Your task to perform on an android device: change keyboard looks Image 0: 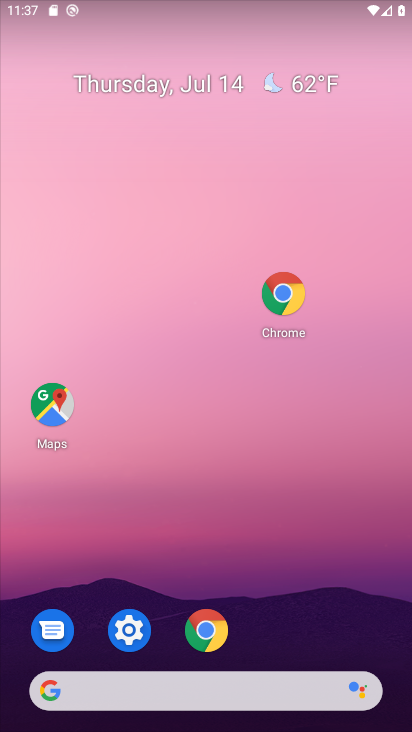
Step 0: click (246, 176)
Your task to perform on an android device: change keyboard looks Image 1: 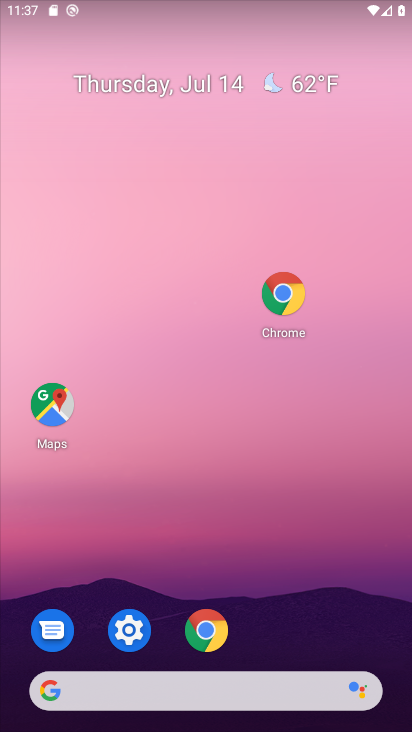
Step 1: drag from (231, 435) to (182, 91)
Your task to perform on an android device: change keyboard looks Image 2: 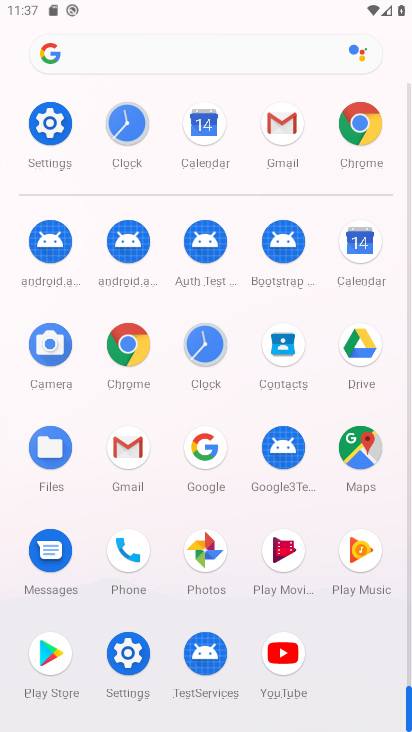
Step 2: click (125, 649)
Your task to perform on an android device: change keyboard looks Image 3: 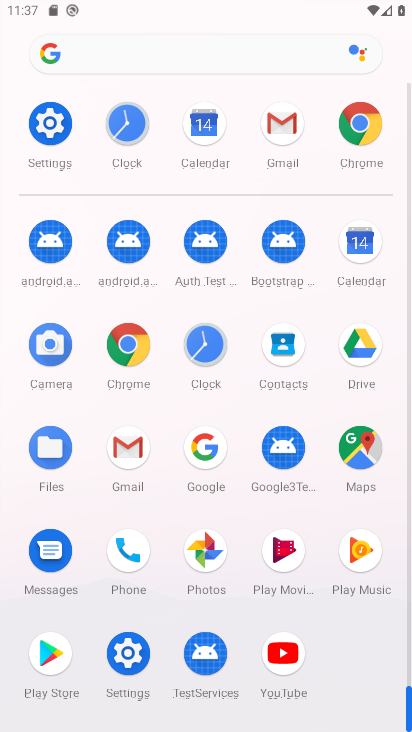
Step 3: click (126, 649)
Your task to perform on an android device: change keyboard looks Image 4: 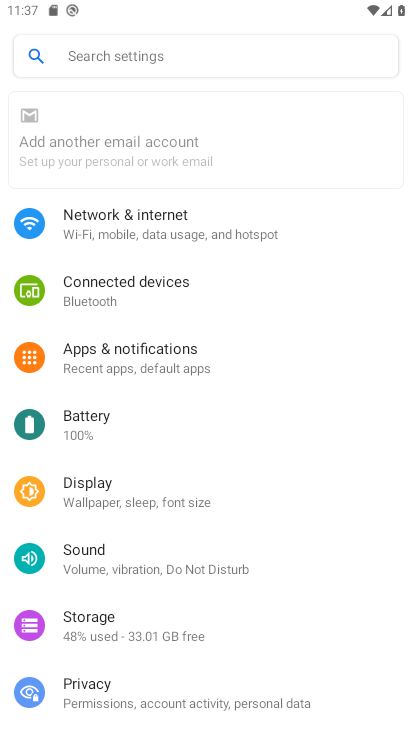
Step 4: drag from (123, 508) to (105, 189)
Your task to perform on an android device: change keyboard looks Image 5: 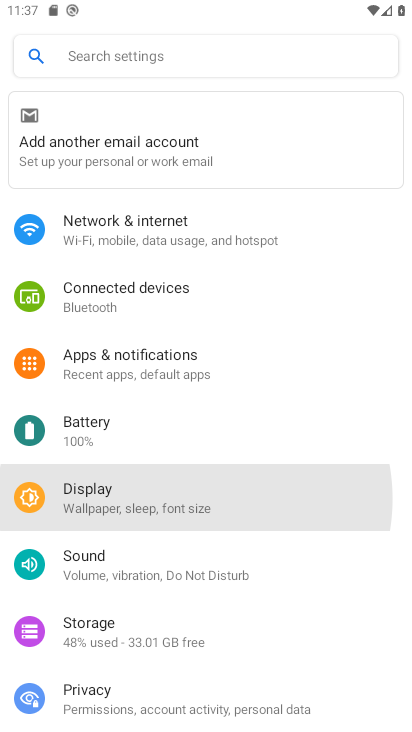
Step 5: drag from (127, 533) to (134, 170)
Your task to perform on an android device: change keyboard looks Image 6: 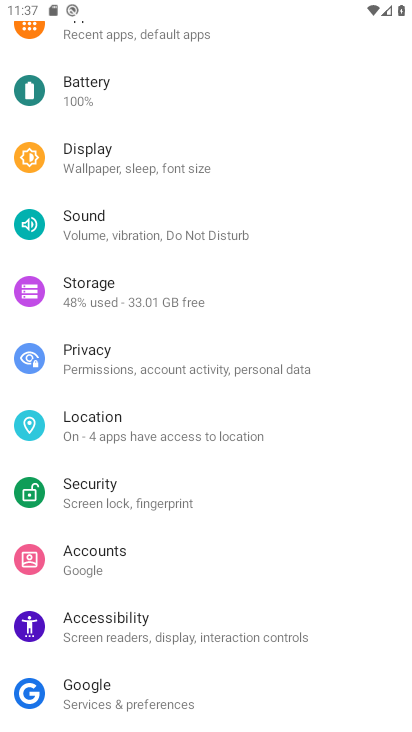
Step 6: drag from (191, 503) to (162, 282)
Your task to perform on an android device: change keyboard looks Image 7: 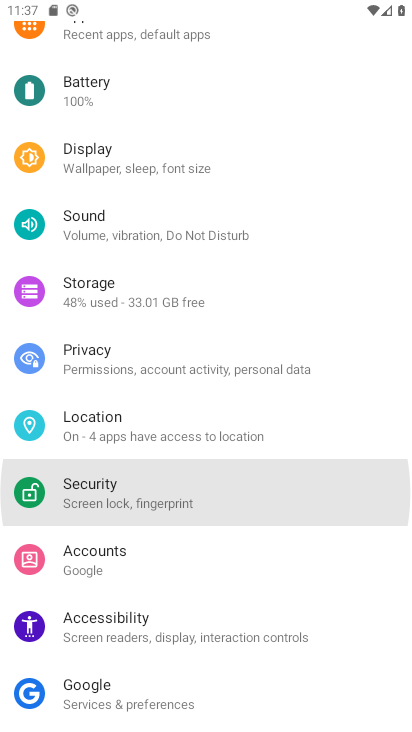
Step 7: drag from (213, 545) to (170, 182)
Your task to perform on an android device: change keyboard looks Image 8: 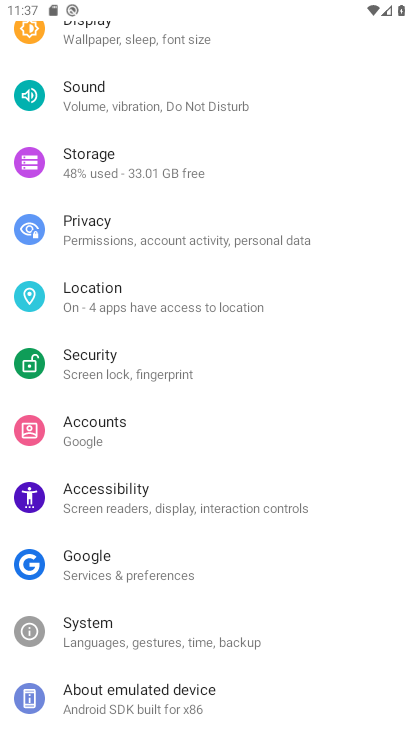
Step 8: click (88, 629)
Your task to perform on an android device: change keyboard looks Image 9: 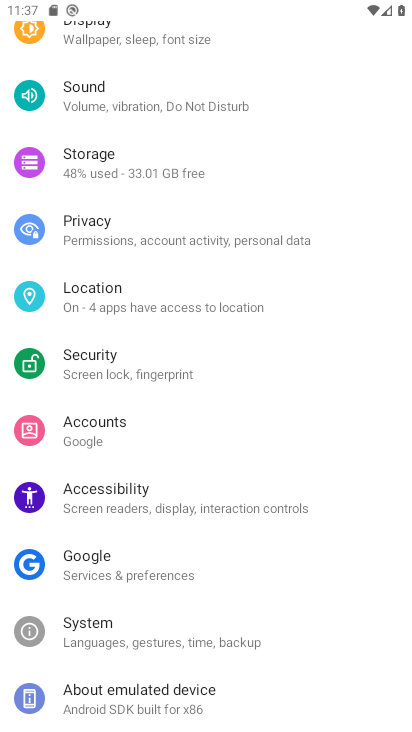
Step 9: click (87, 627)
Your task to perform on an android device: change keyboard looks Image 10: 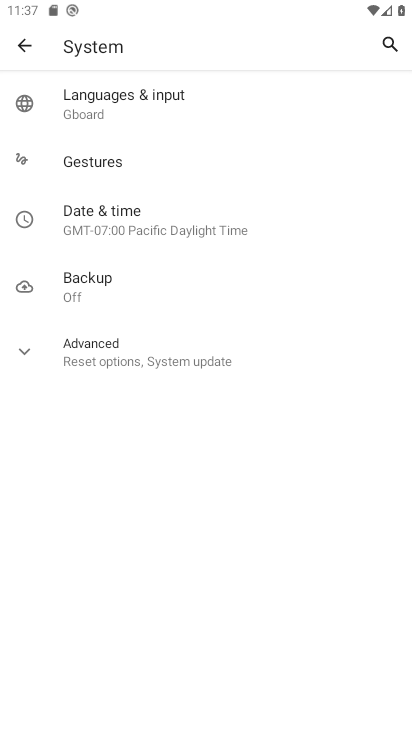
Step 10: click (90, 105)
Your task to perform on an android device: change keyboard looks Image 11: 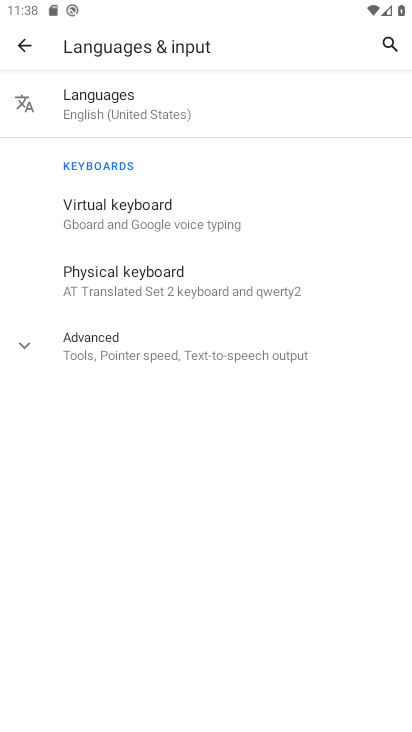
Step 11: click (130, 209)
Your task to perform on an android device: change keyboard looks Image 12: 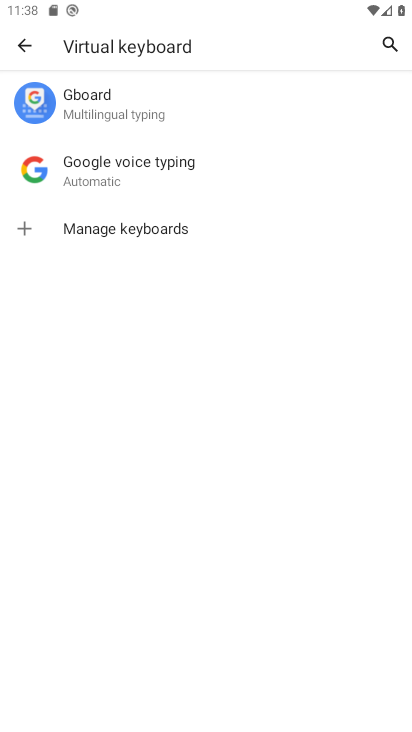
Step 12: click (79, 98)
Your task to perform on an android device: change keyboard looks Image 13: 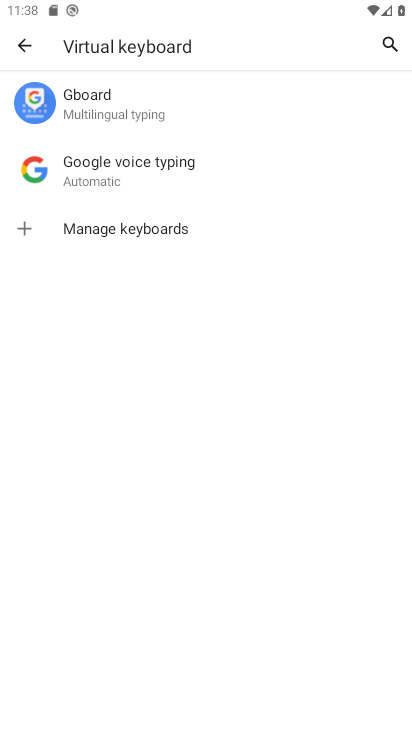
Step 13: click (79, 98)
Your task to perform on an android device: change keyboard looks Image 14: 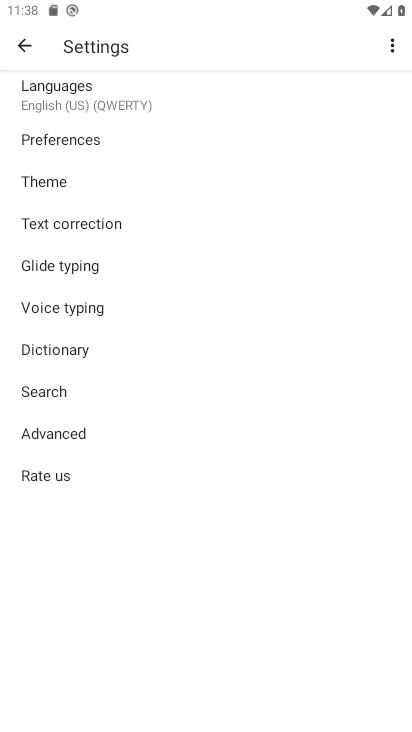
Step 14: click (44, 185)
Your task to perform on an android device: change keyboard looks Image 15: 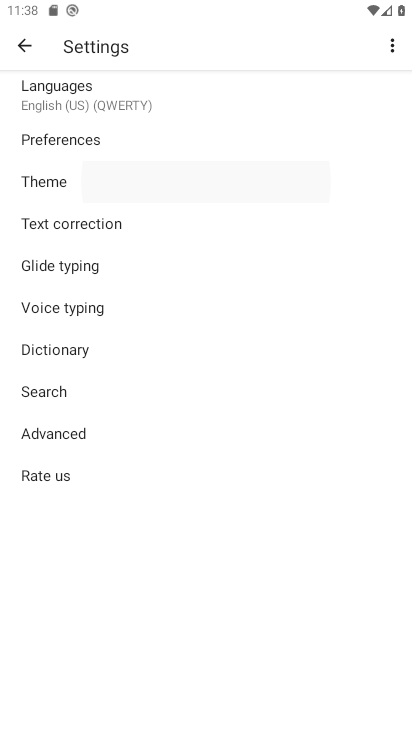
Step 15: click (44, 185)
Your task to perform on an android device: change keyboard looks Image 16: 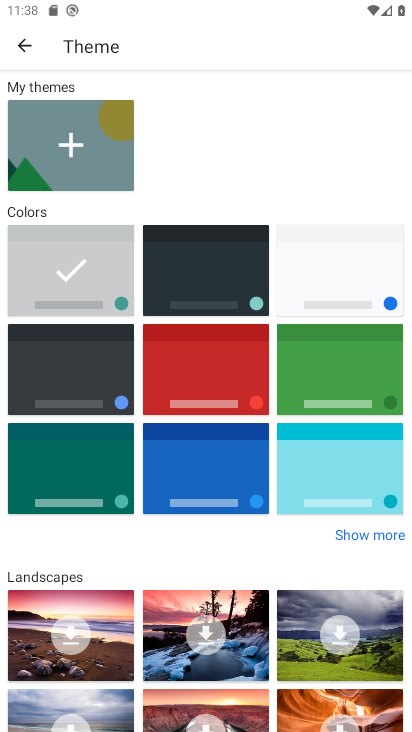
Step 16: click (90, 374)
Your task to perform on an android device: change keyboard looks Image 17: 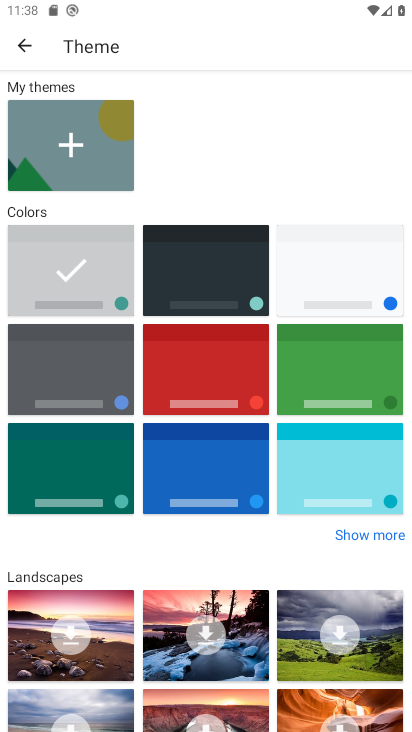
Step 17: click (85, 375)
Your task to perform on an android device: change keyboard looks Image 18: 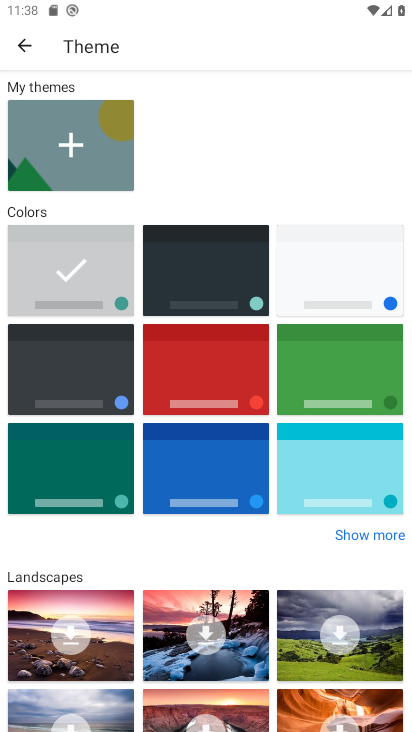
Step 18: click (87, 383)
Your task to perform on an android device: change keyboard looks Image 19: 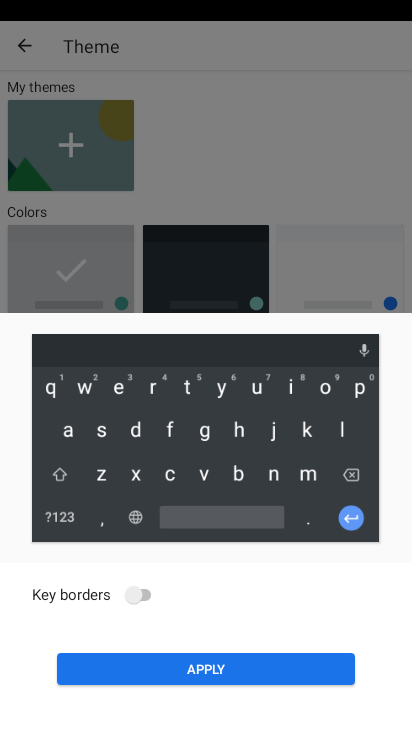
Step 19: click (222, 666)
Your task to perform on an android device: change keyboard looks Image 20: 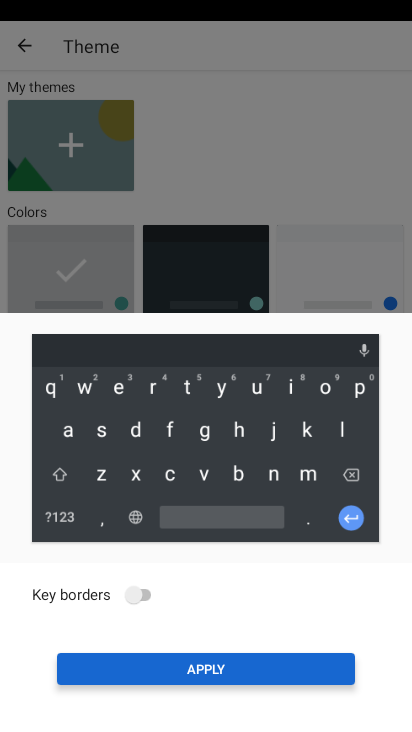
Step 20: click (222, 666)
Your task to perform on an android device: change keyboard looks Image 21: 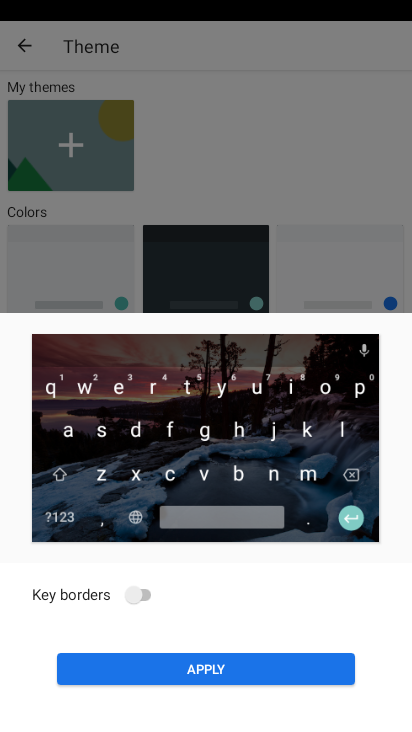
Step 21: click (222, 666)
Your task to perform on an android device: change keyboard looks Image 22: 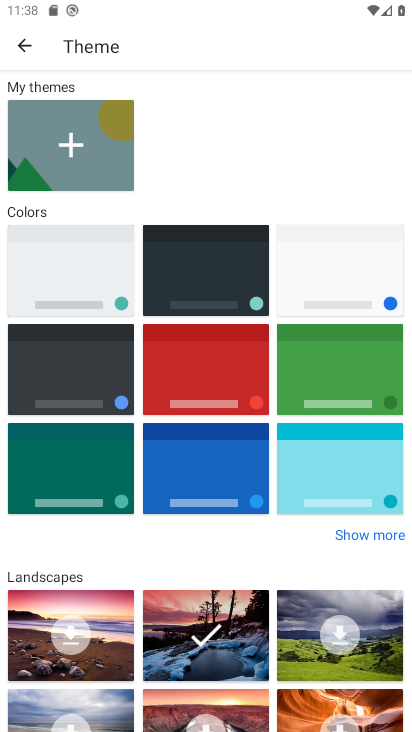
Step 22: task complete